Your task to perform on an android device: Do I have any events today? Image 0: 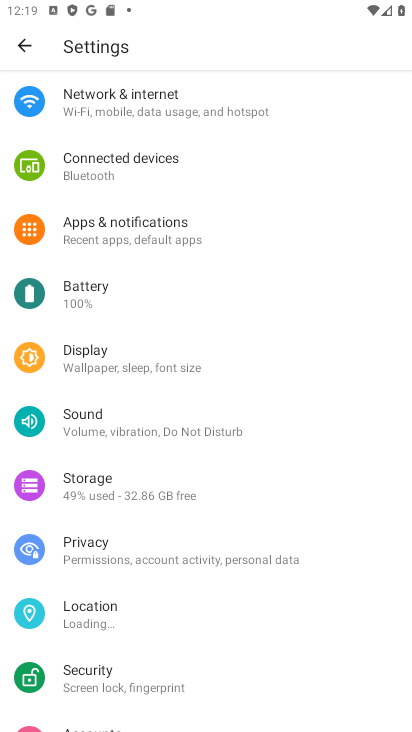
Step 0: press home button
Your task to perform on an android device: Do I have any events today? Image 1: 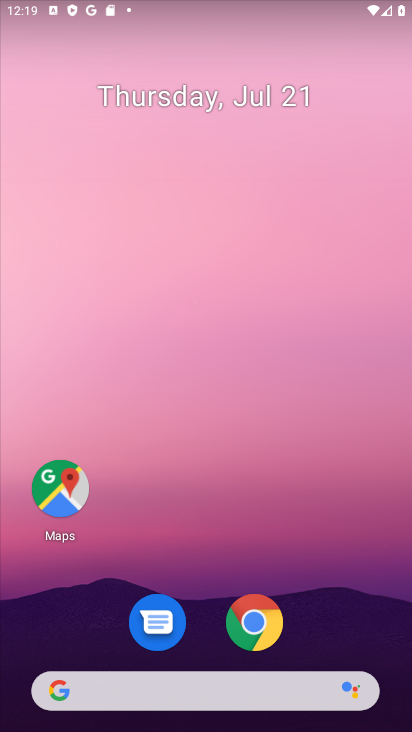
Step 1: drag from (295, 408) to (325, 280)
Your task to perform on an android device: Do I have any events today? Image 2: 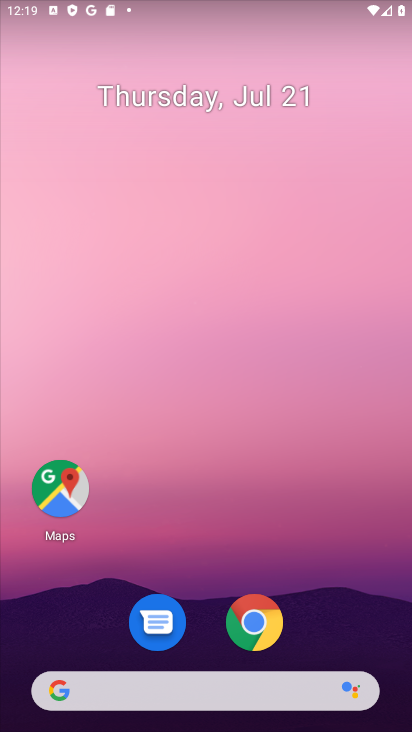
Step 2: drag from (210, 615) to (323, 54)
Your task to perform on an android device: Do I have any events today? Image 3: 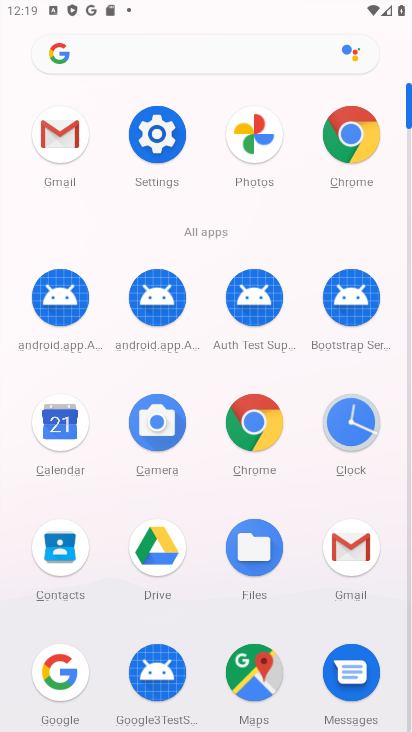
Step 3: click (56, 426)
Your task to perform on an android device: Do I have any events today? Image 4: 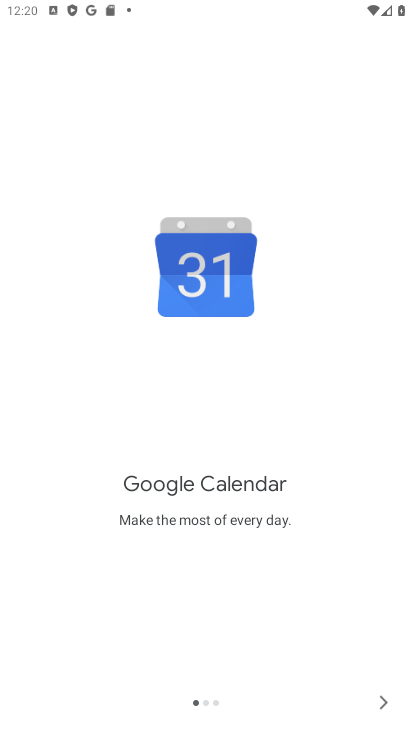
Step 4: click (369, 700)
Your task to perform on an android device: Do I have any events today? Image 5: 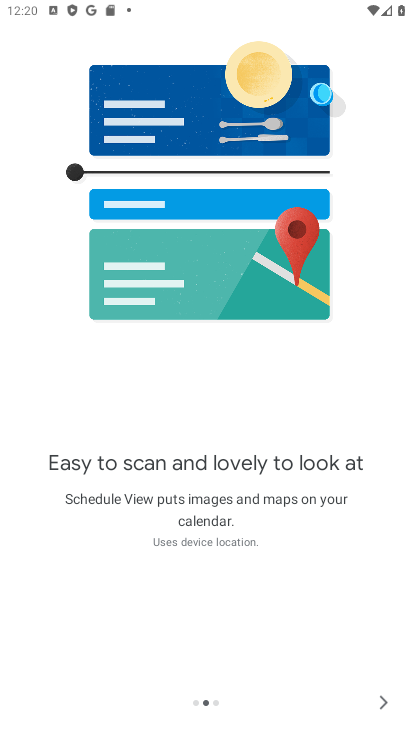
Step 5: click (374, 704)
Your task to perform on an android device: Do I have any events today? Image 6: 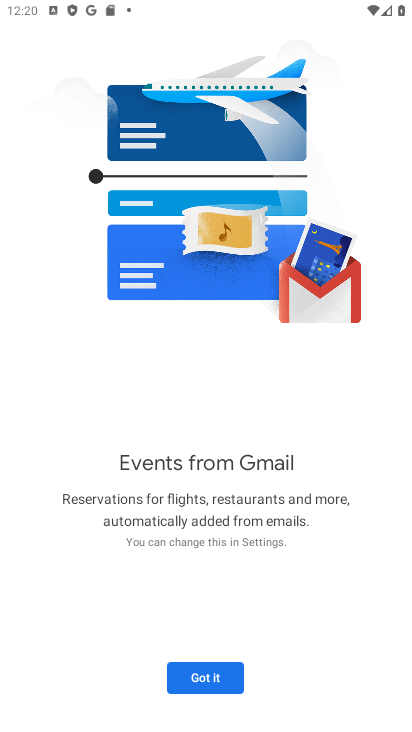
Step 6: click (374, 705)
Your task to perform on an android device: Do I have any events today? Image 7: 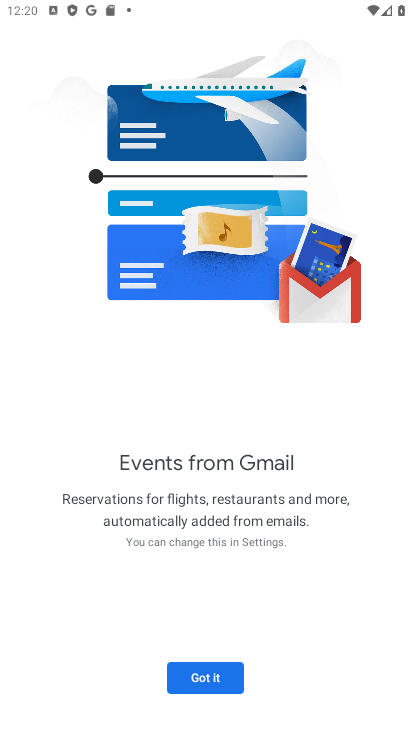
Step 7: click (186, 685)
Your task to perform on an android device: Do I have any events today? Image 8: 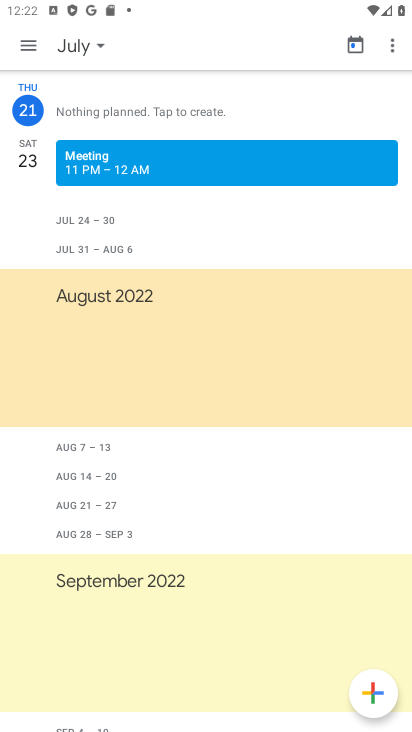
Step 8: task complete